Your task to perform on an android device: change text size in settings app Image 0: 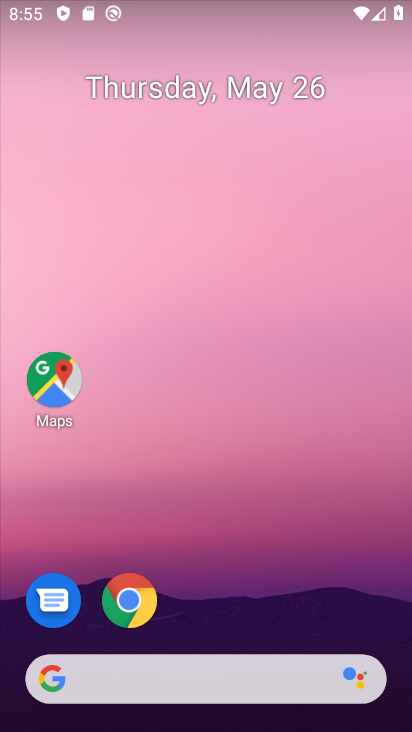
Step 0: drag from (192, 606) to (241, 139)
Your task to perform on an android device: change text size in settings app Image 1: 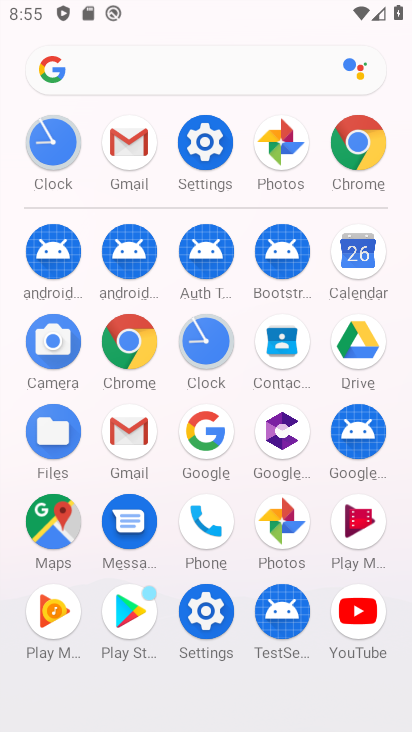
Step 1: click (213, 149)
Your task to perform on an android device: change text size in settings app Image 2: 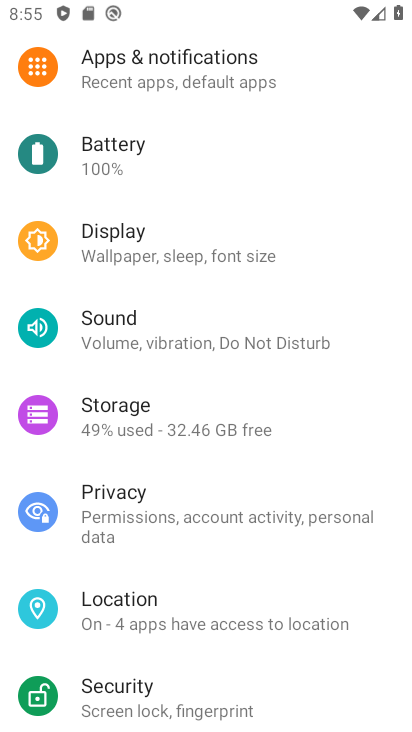
Step 2: click (195, 241)
Your task to perform on an android device: change text size in settings app Image 3: 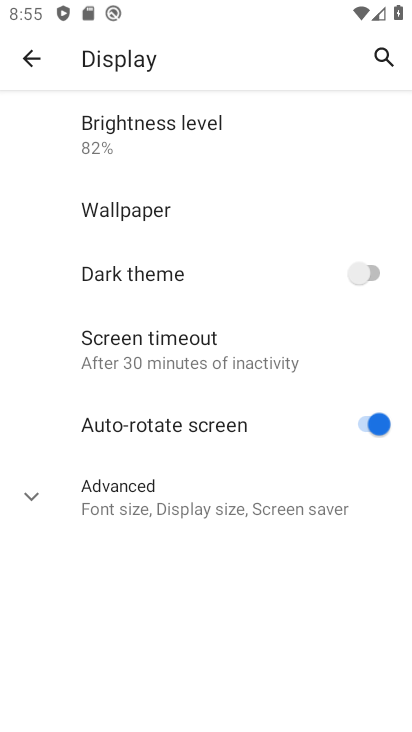
Step 3: click (169, 505)
Your task to perform on an android device: change text size in settings app Image 4: 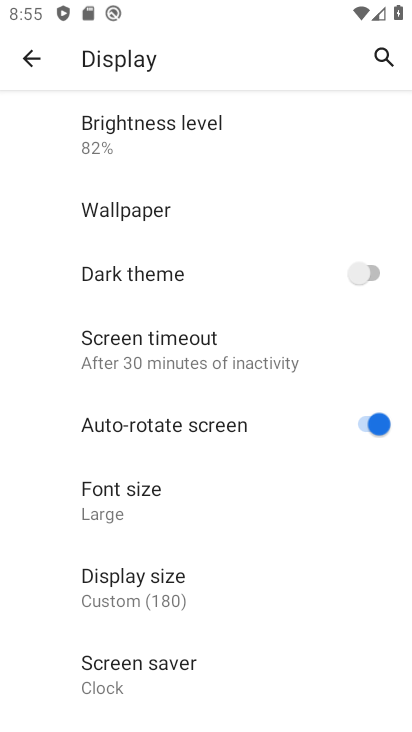
Step 4: click (169, 505)
Your task to perform on an android device: change text size in settings app Image 5: 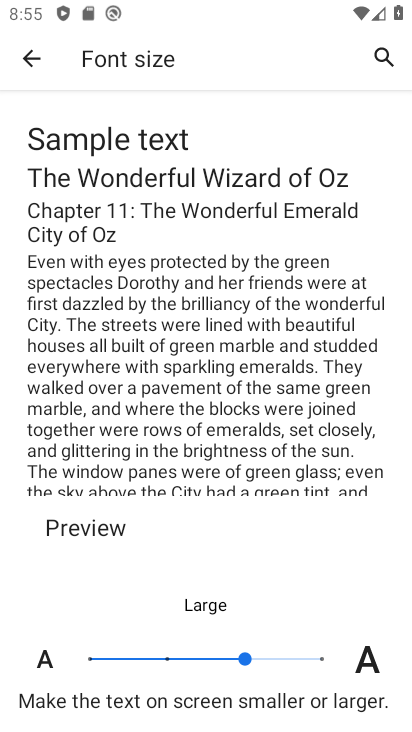
Step 5: click (87, 661)
Your task to perform on an android device: change text size in settings app Image 6: 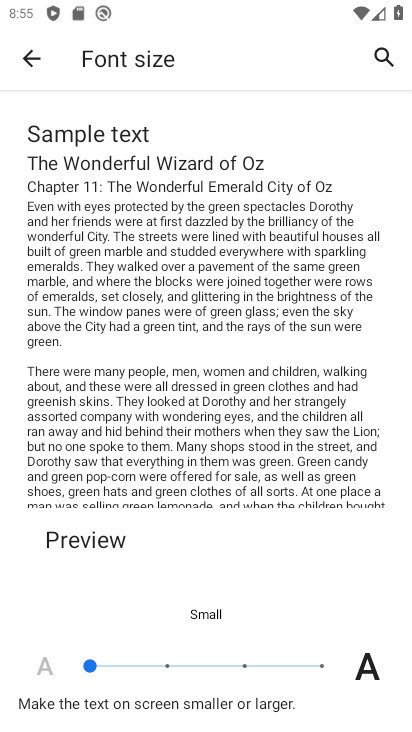
Step 6: task complete